Your task to perform on an android device: change the clock display to show seconds Image 0: 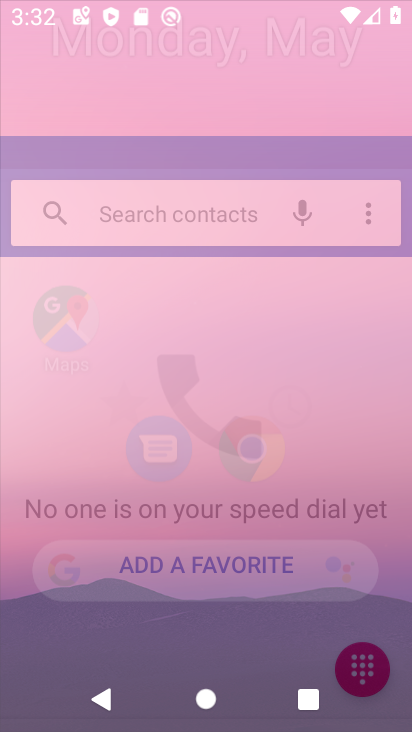
Step 0: press home button
Your task to perform on an android device: change the clock display to show seconds Image 1: 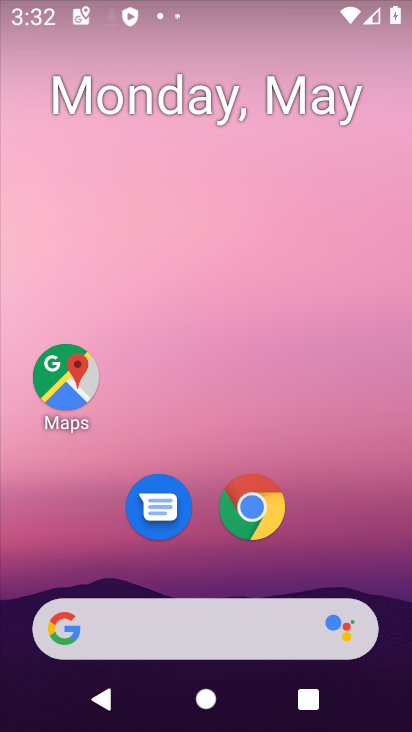
Step 1: drag from (177, 584) to (236, 45)
Your task to perform on an android device: change the clock display to show seconds Image 2: 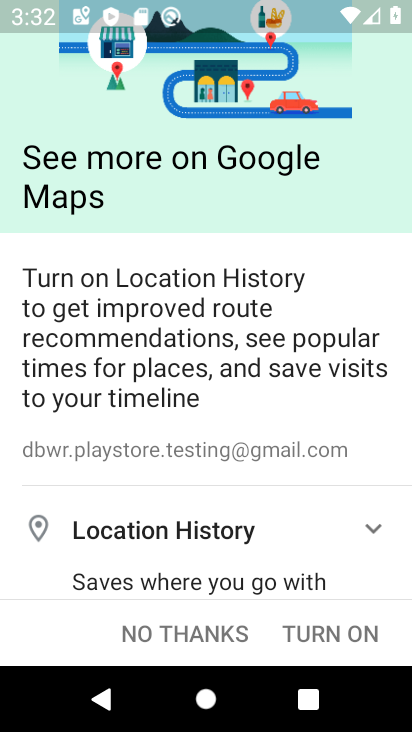
Step 2: press home button
Your task to perform on an android device: change the clock display to show seconds Image 3: 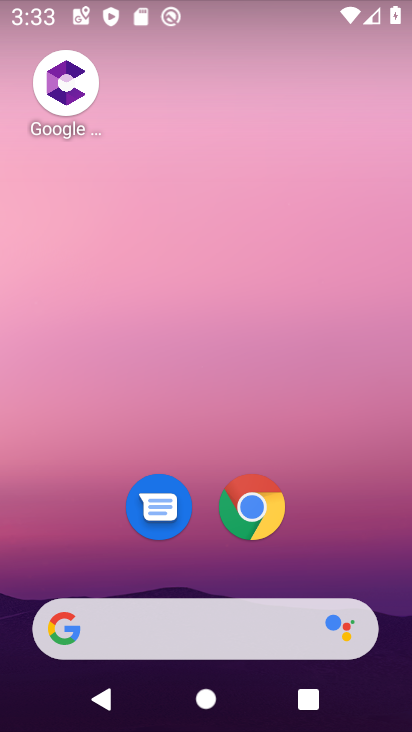
Step 3: drag from (218, 576) to (205, 39)
Your task to perform on an android device: change the clock display to show seconds Image 4: 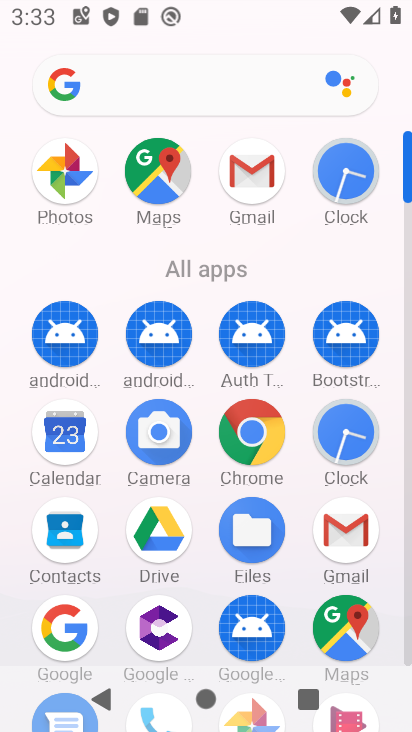
Step 4: click (367, 172)
Your task to perform on an android device: change the clock display to show seconds Image 5: 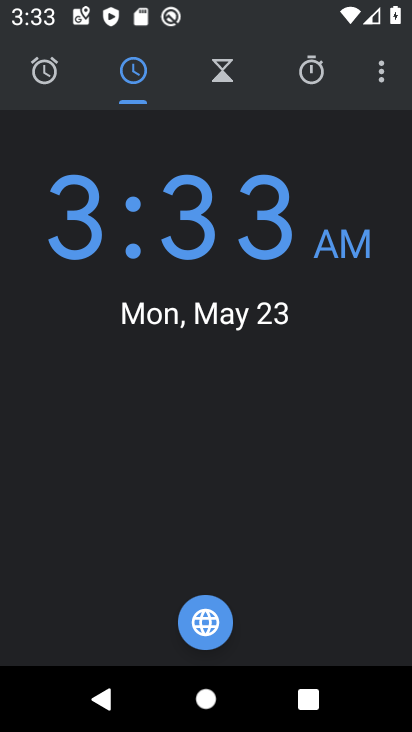
Step 5: click (390, 75)
Your task to perform on an android device: change the clock display to show seconds Image 6: 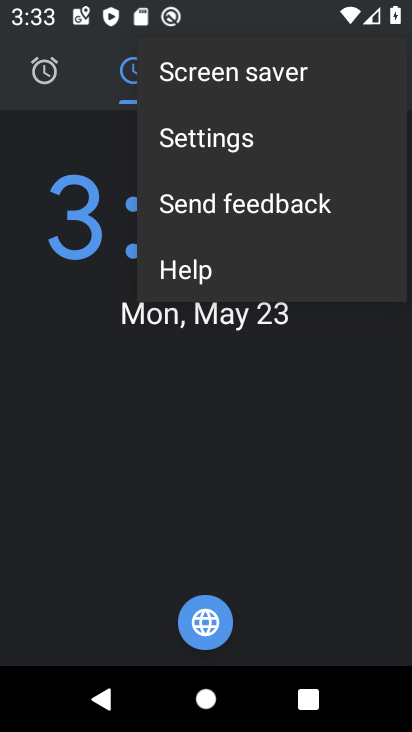
Step 6: click (245, 150)
Your task to perform on an android device: change the clock display to show seconds Image 7: 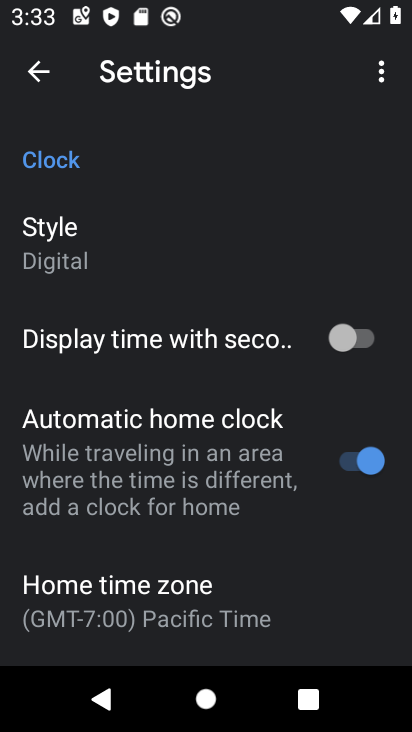
Step 7: click (366, 335)
Your task to perform on an android device: change the clock display to show seconds Image 8: 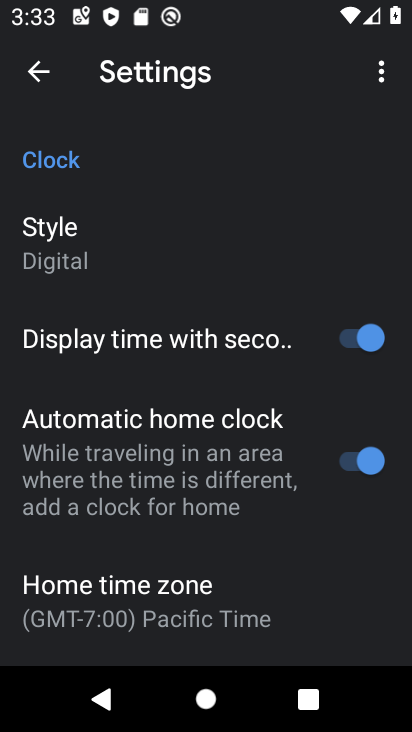
Step 8: task complete